Your task to perform on an android device: Open the calendar app, open the side menu, and click the "Day" option Image 0: 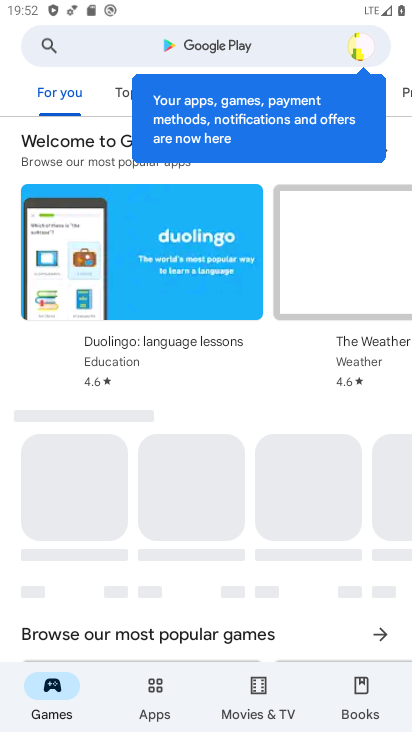
Step 0: press home button
Your task to perform on an android device: Open the calendar app, open the side menu, and click the "Day" option Image 1: 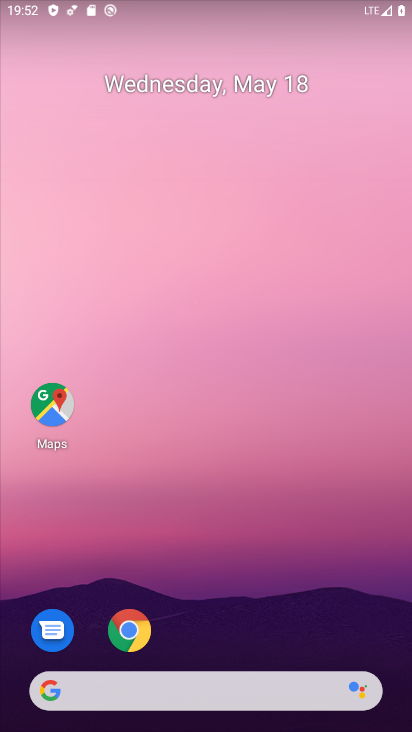
Step 1: drag from (162, 696) to (299, 228)
Your task to perform on an android device: Open the calendar app, open the side menu, and click the "Day" option Image 2: 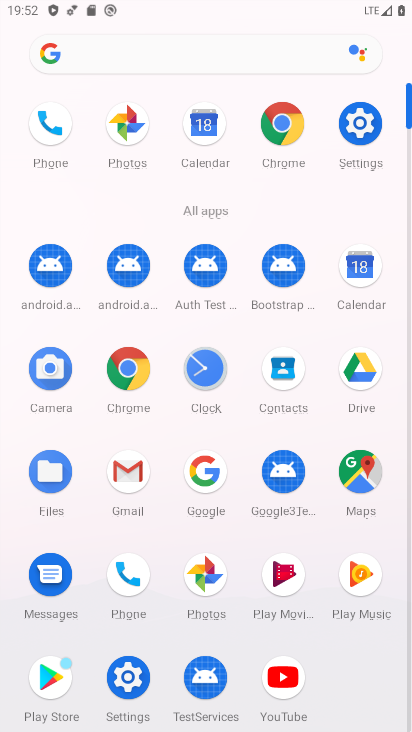
Step 2: click (359, 277)
Your task to perform on an android device: Open the calendar app, open the side menu, and click the "Day" option Image 3: 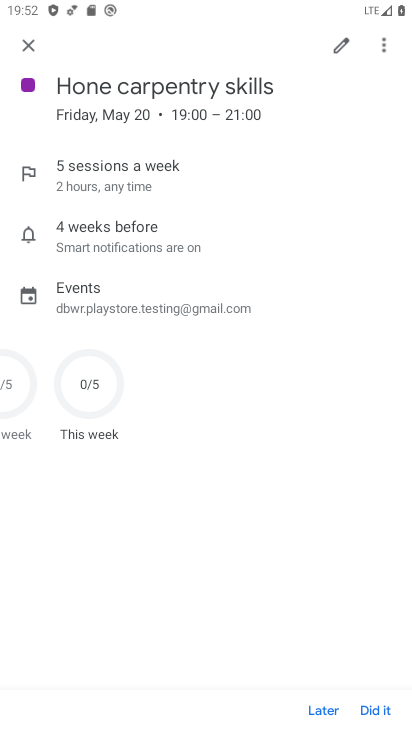
Step 3: click (28, 46)
Your task to perform on an android device: Open the calendar app, open the side menu, and click the "Day" option Image 4: 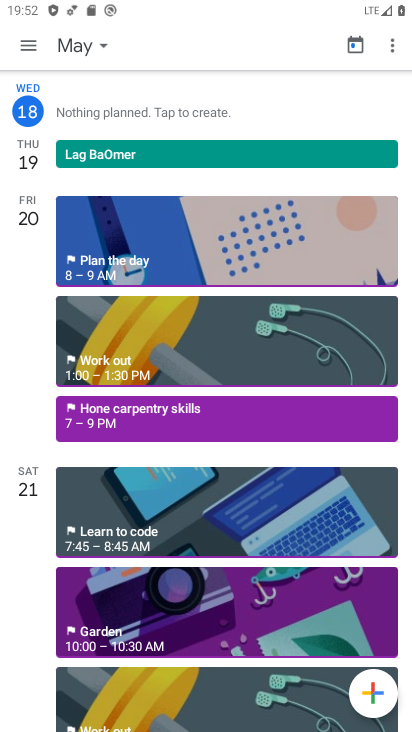
Step 4: click (28, 46)
Your task to perform on an android device: Open the calendar app, open the side menu, and click the "Day" option Image 5: 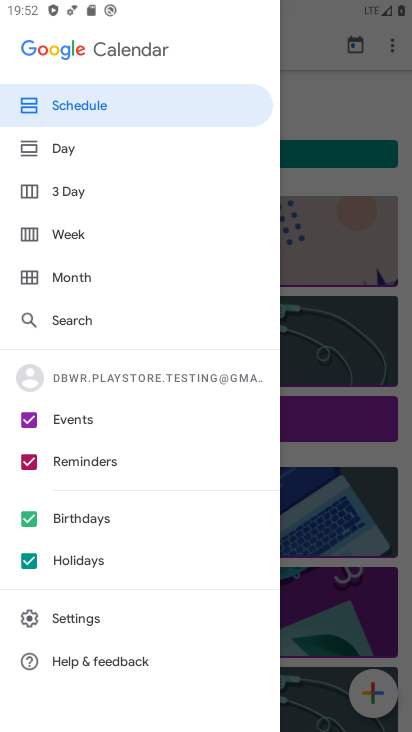
Step 5: click (71, 151)
Your task to perform on an android device: Open the calendar app, open the side menu, and click the "Day" option Image 6: 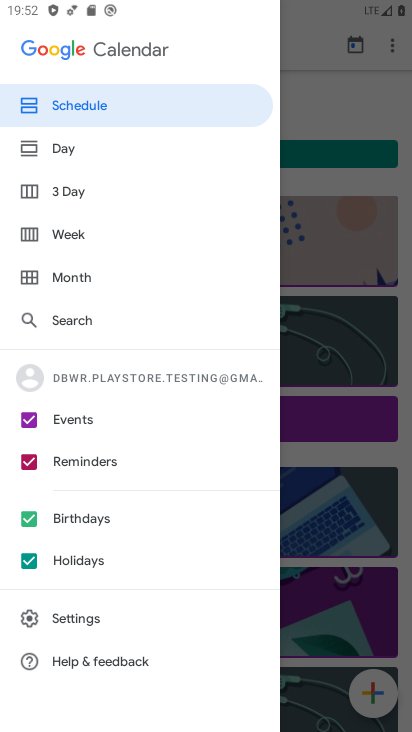
Step 6: click (61, 143)
Your task to perform on an android device: Open the calendar app, open the side menu, and click the "Day" option Image 7: 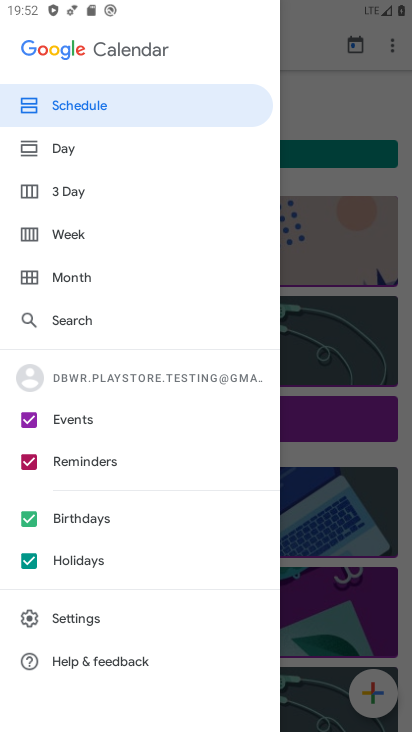
Step 7: click (69, 145)
Your task to perform on an android device: Open the calendar app, open the side menu, and click the "Day" option Image 8: 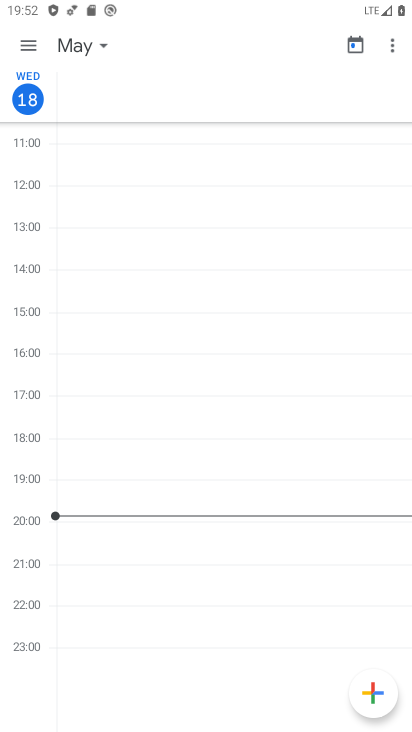
Step 8: task complete